Your task to perform on an android device: turn notification dots on Image 0: 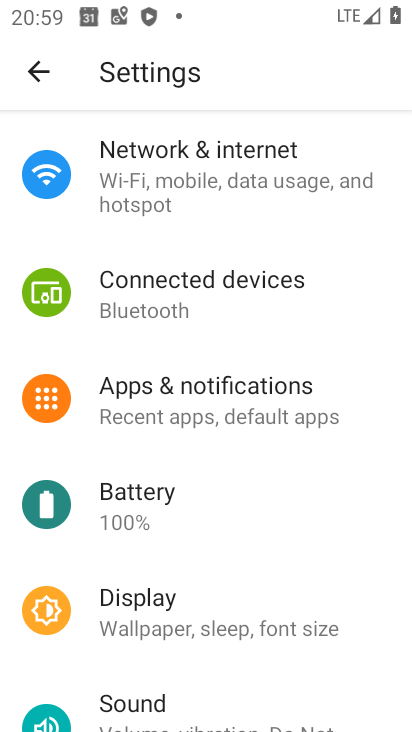
Step 0: click (239, 389)
Your task to perform on an android device: turn notification dots on Image 1: 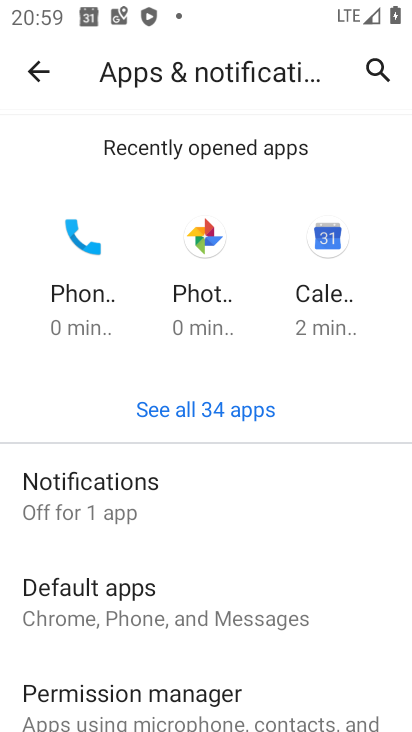
Step 1: click (116, 502)
Your task to perform on an android device: turn notification dots on Image 2: 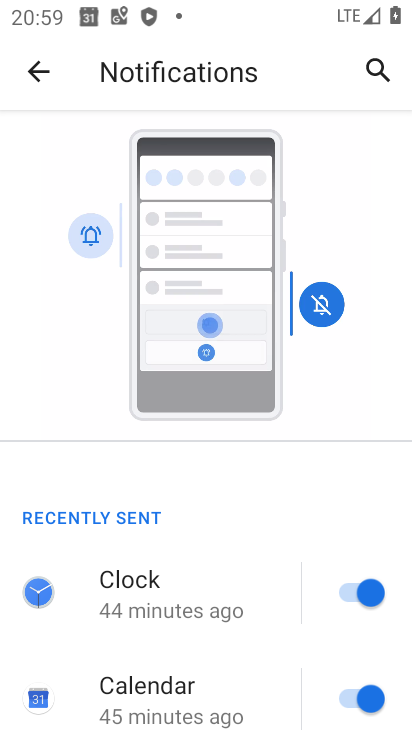
Step 2: drag from (189, 649) to (208, 132)
Your task to perform on an android device: turn notification dots on Image 3: 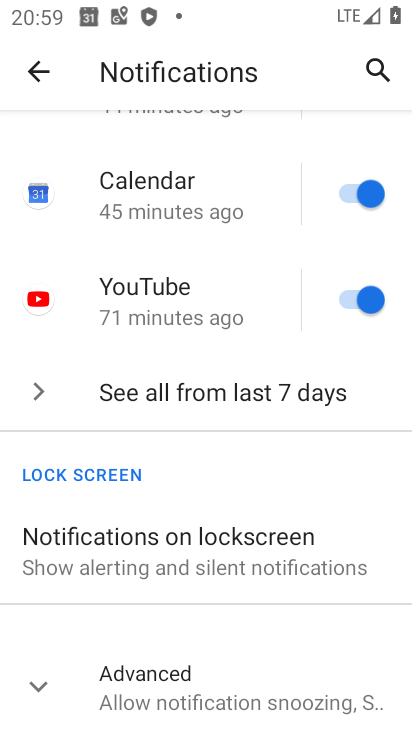
Step 3: drag from (178, 469) to (205, 95)
Your task to perform on an android device: turn notification dots on Image 4: 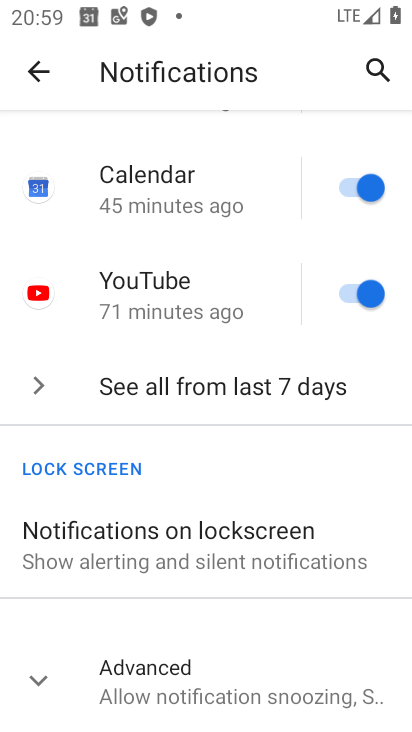
Step 4: click (35, 687)
Your task to perform on an android device: turn notification dots on Image 5: 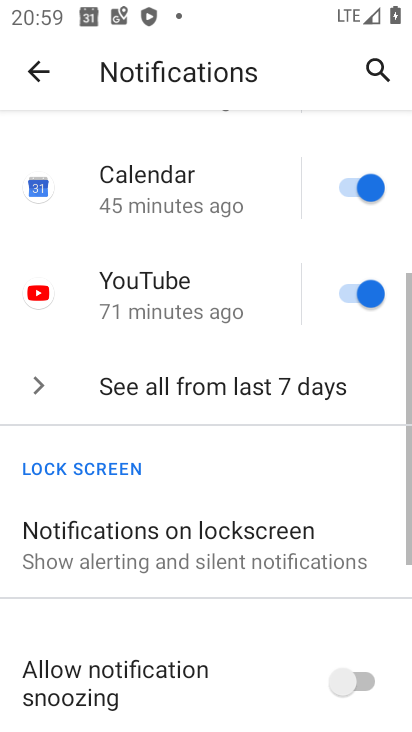
Step 5: task complete